Your task to perform on an android device: What's the weather? Image 0: 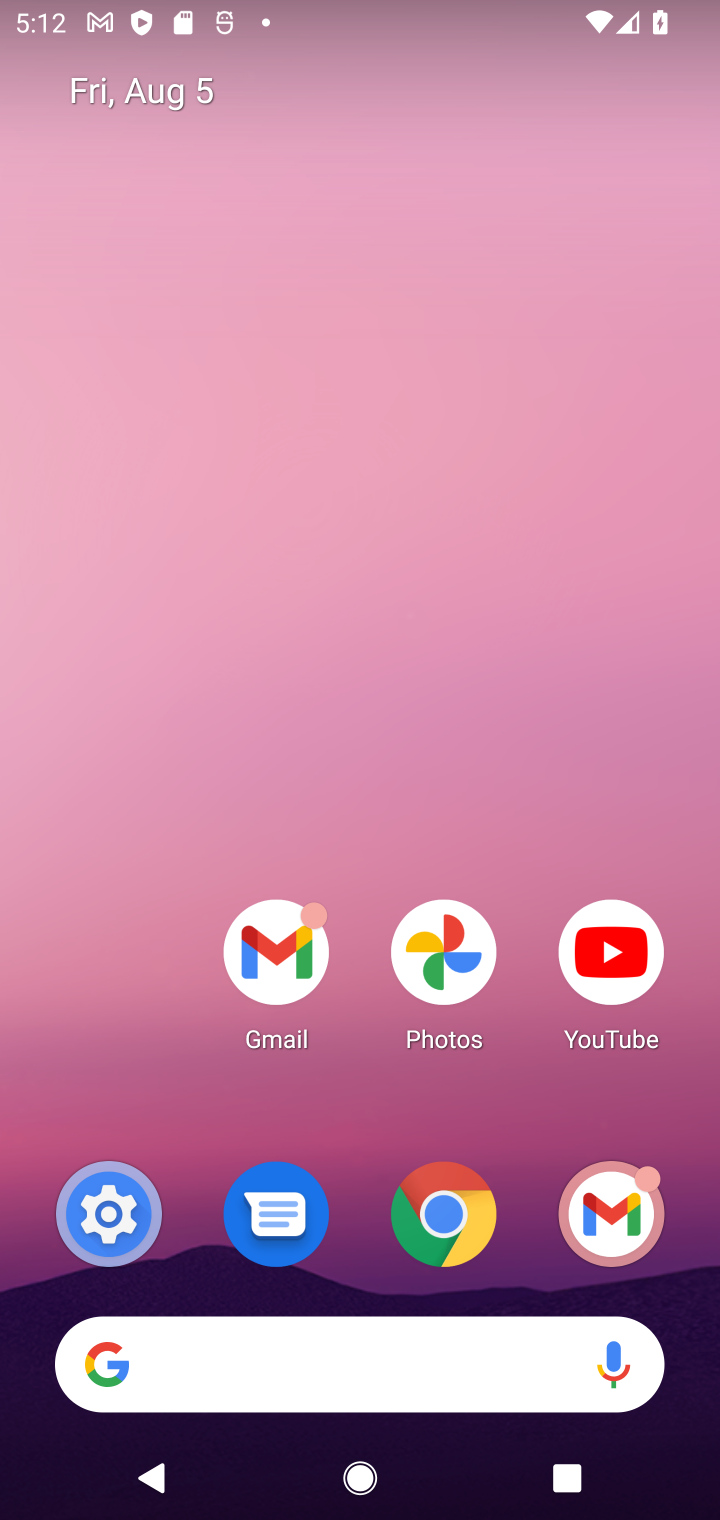
Step 0: click (299, 1348)
Your task to perform on an android device: What's the weather? Image 1: 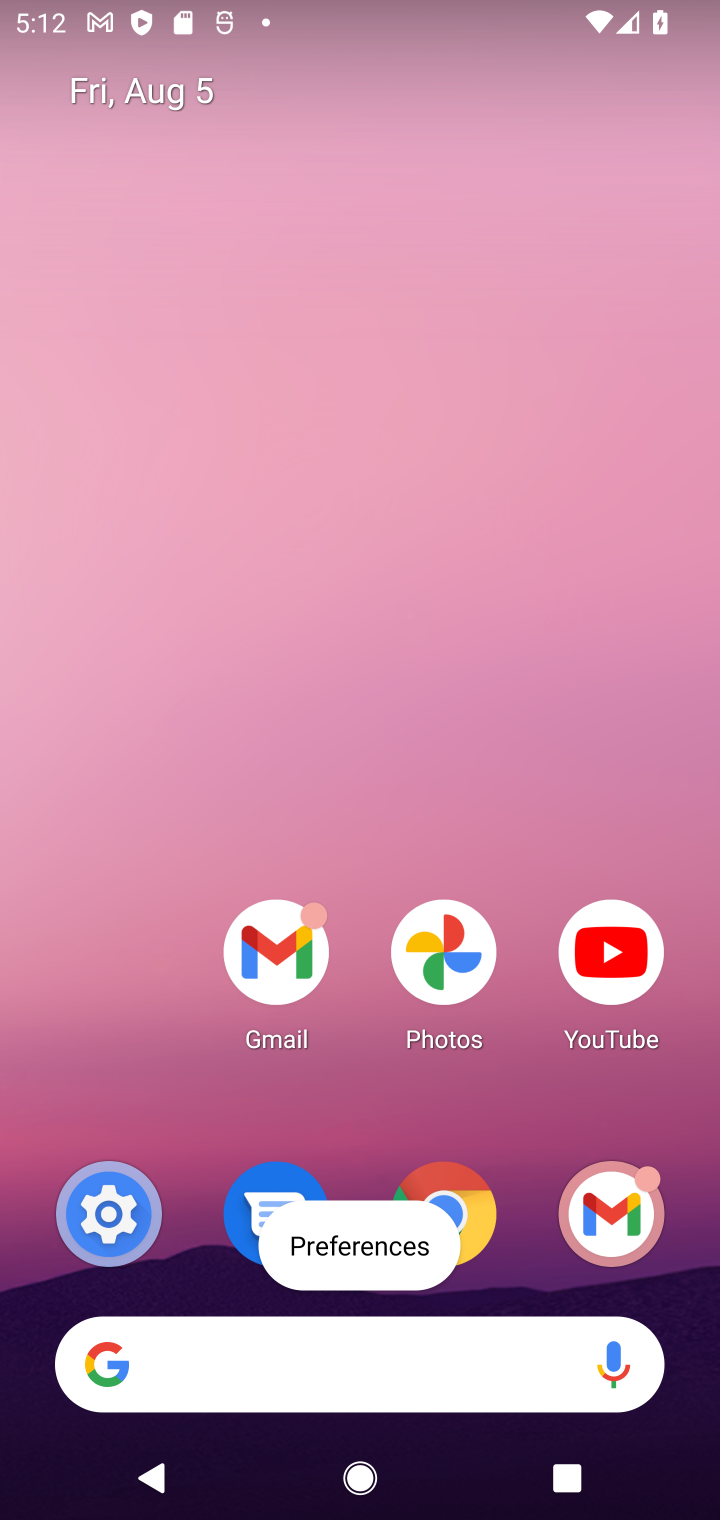
Step 1: click (302, 1364)
Your task to perform on an android device: What's the weather? Image 2: 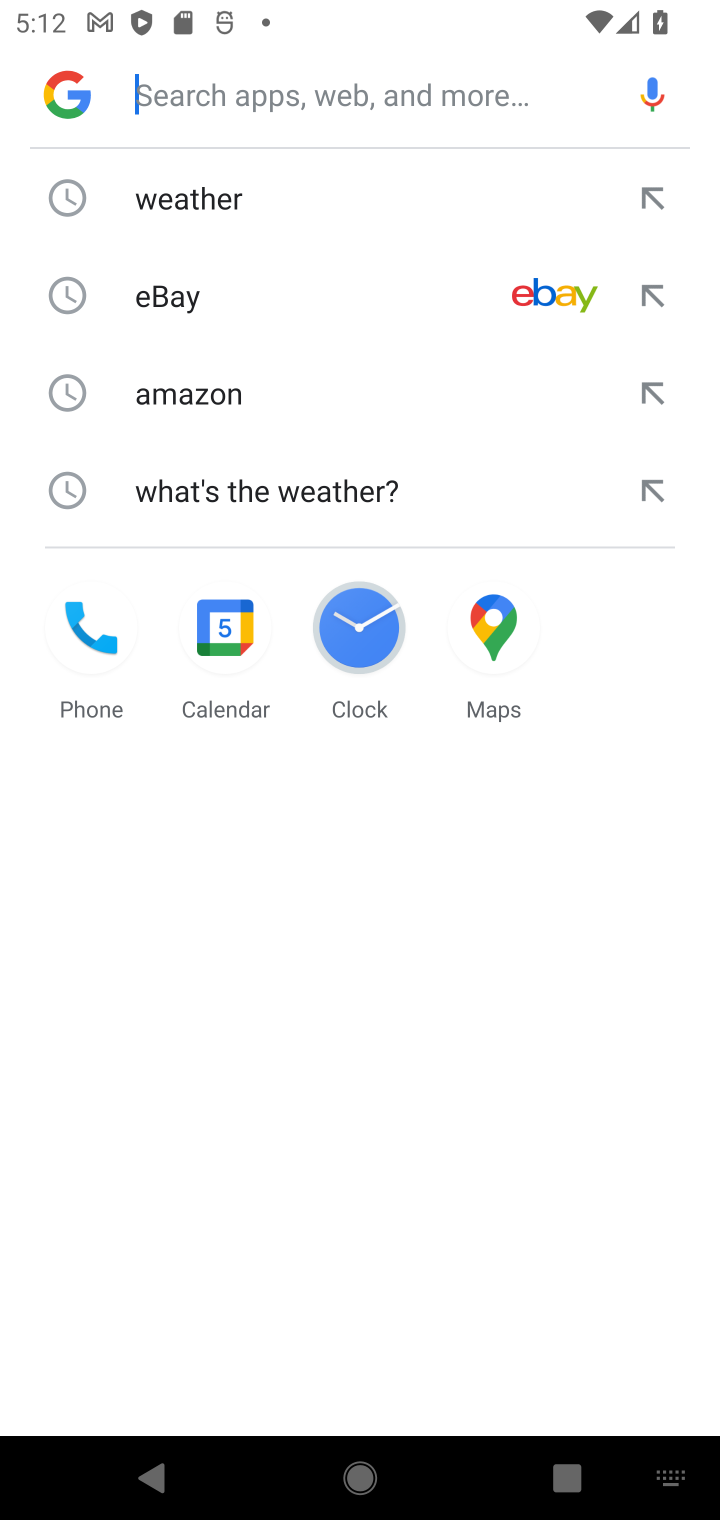
Step 2: click (301, 186)
Your task to perform on an android device: What's the weather? Image 3: 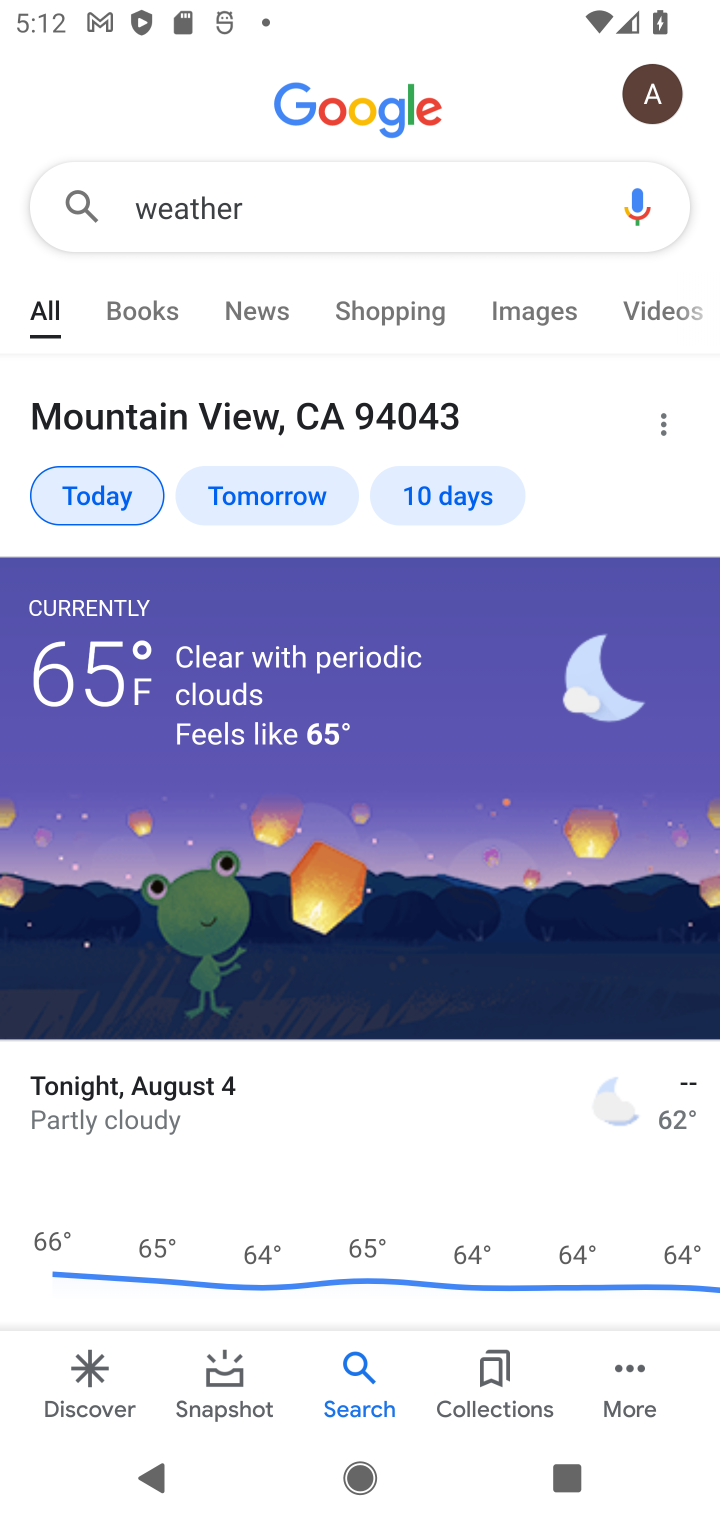
Step 3: click (124, 505)
Your task to perform on an android device: What's the weather? Image 4: 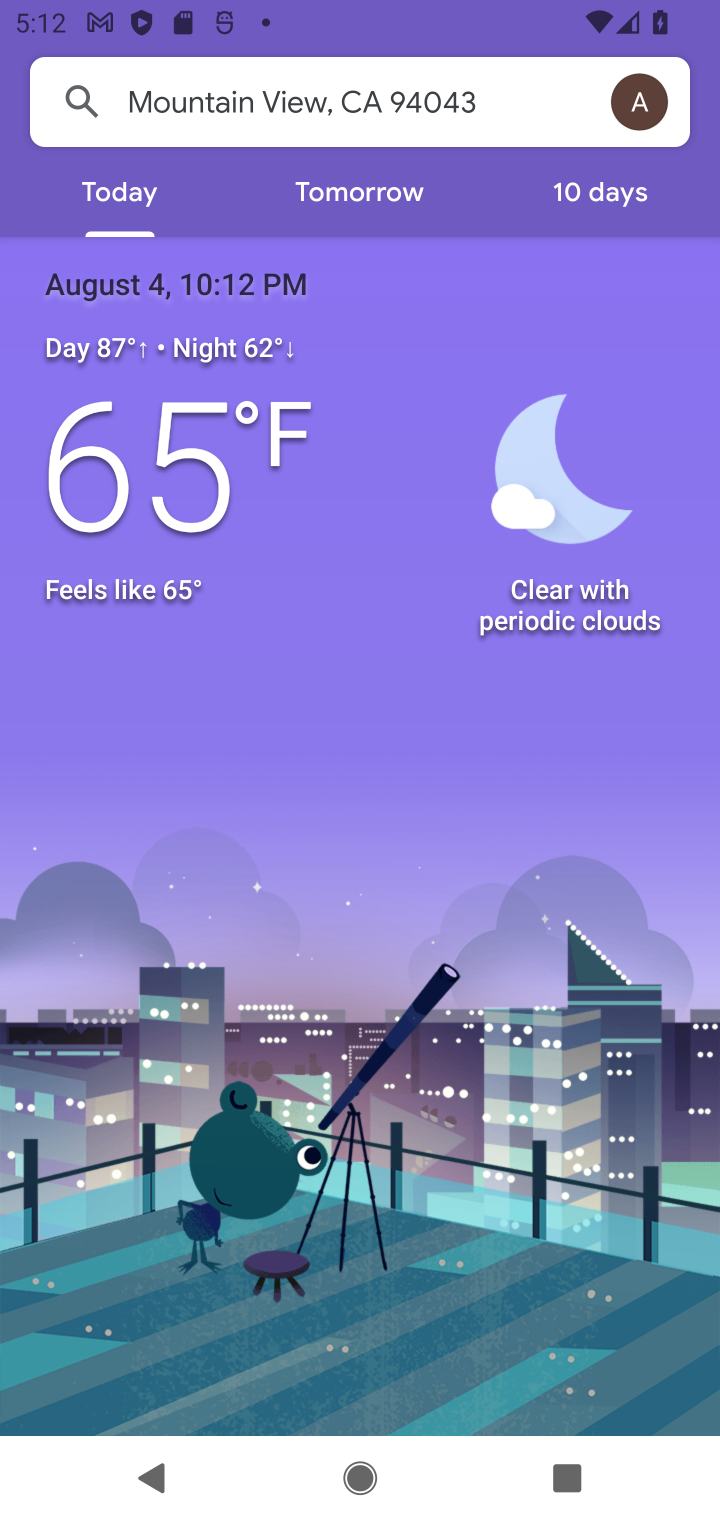
Step 4: task complete